Your task to perform on an android device: turn on improve location accuracy Image 0: 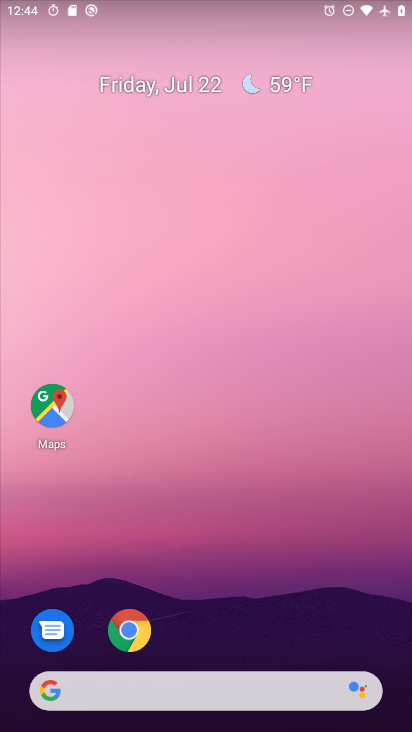
Step 0: press home button
Your task to perform on an android device: turn on improve location accuracy Image 1: 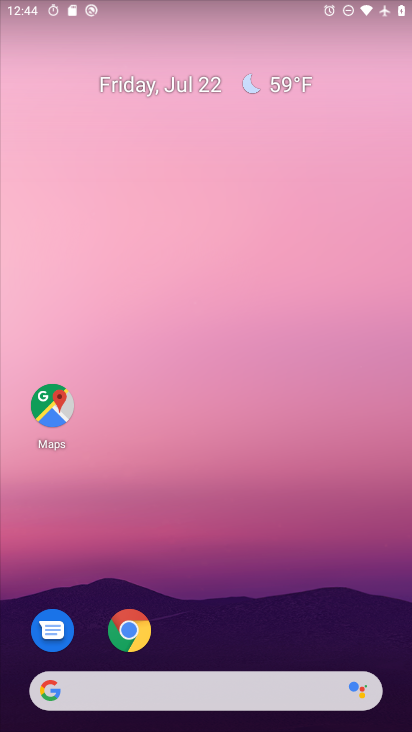
Step 1: drag from (245, 656) to (296, 188)
Your task to perform on an android device: turn on improve location accuracy Image 2: 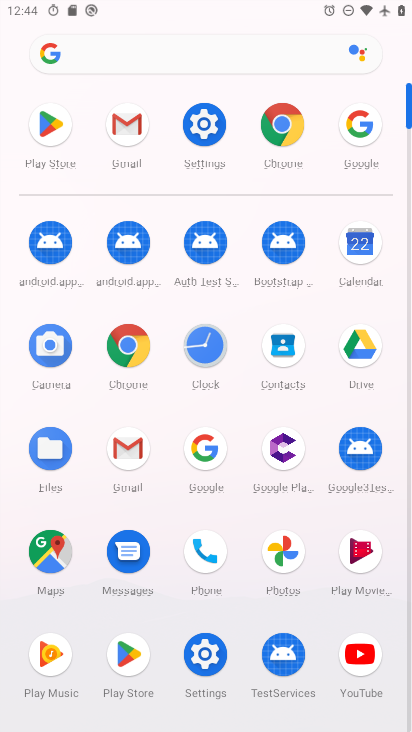
Step 2: click (214, 108)
Your task to perform on an android device: turn on improve location accuracy Image 3: 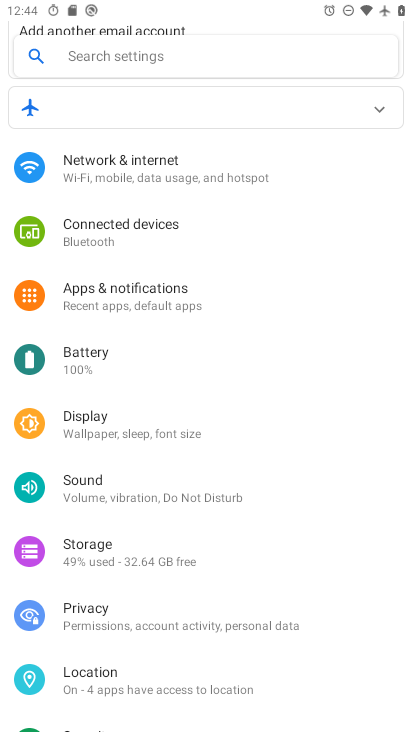
Step 3: click (102, 681)
Your task to perform on an android device: turn on improve location accuracy Image 4: 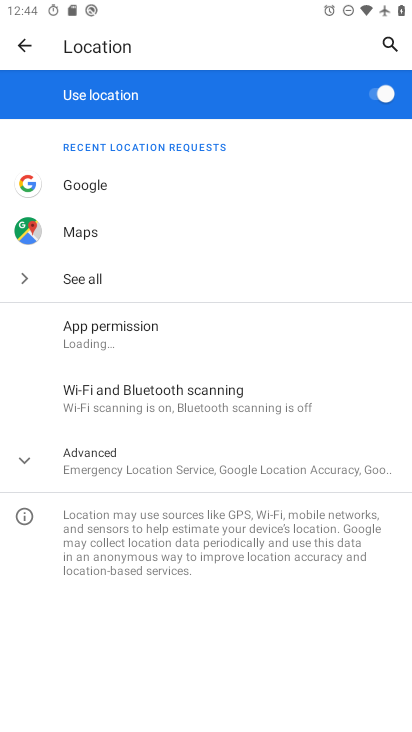
Step 4: click (64, 458)
Your task to perform on an android device: turn on improve location accuracy Image 5: 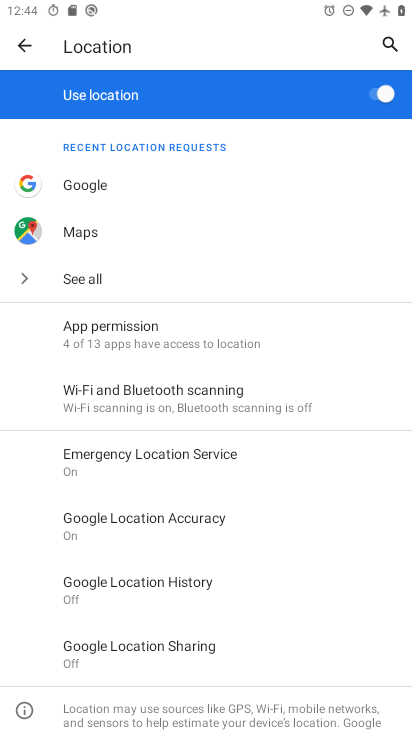
Step 5: click (118, 528)
Your task to perform on an android device: turn on improve location accuracy Image 6: 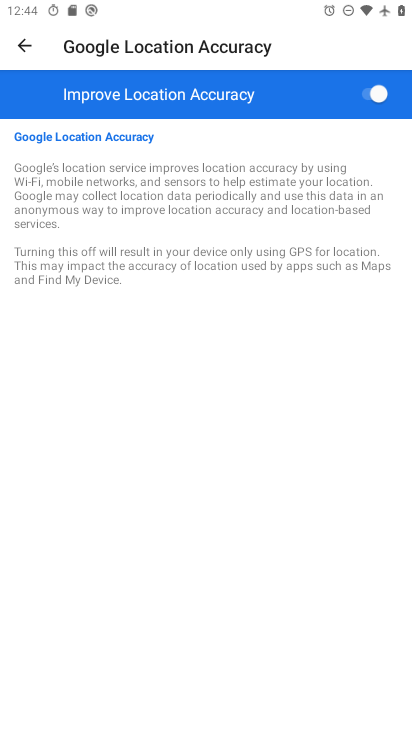
Step 6: task complete